Your task to perform on an android device: open app "The Home Depot" (install if not already installed) and enter user name: "taproot@icloud.com" and password: "executions" Image 0: 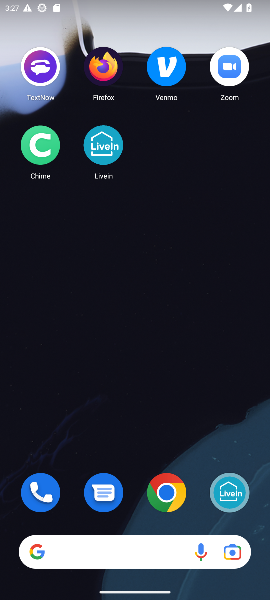
Step 0: drag from (136, 521) to (136, 130)
Your task to perform on an android device: open app "The Home Depot" (install if not already installed) and enter user name: "taproot@icloud.com" and password: "executions" Image 1: 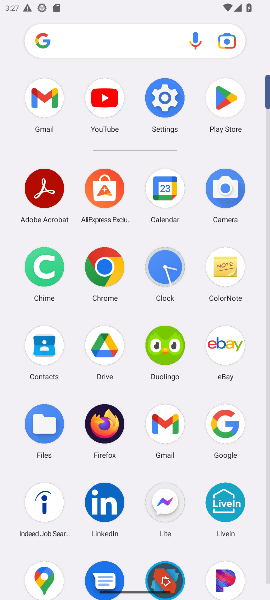
Step 1: click (227, 116)
Your task to perform on an android device: open app "The Home Depot" (install if not already installed) and enter user name: "taproot@icloud.com" and password: "executions" Image 2: 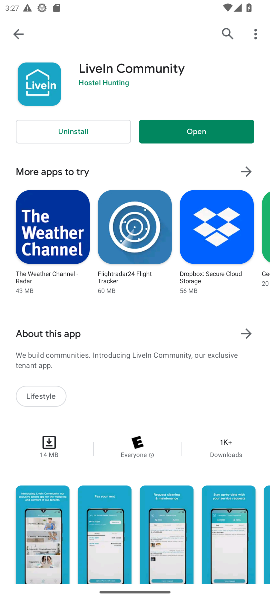
Step 2: click (230, 31)
Your task to perform on an android device: open app "The Home Depot" (install if not already installed) and enter user name: "taproot@icloud.com" and password: "executions" Image 3: 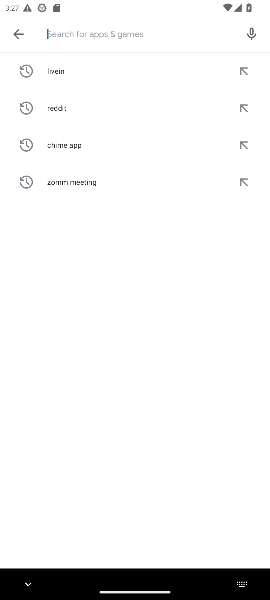
Step 3: type "the home depot"
Your task to perform on an android device: open app "The Home Depot" (install if not already installed) and enter user name: "taproot@icloud.com" and password: "executions" Image 4: 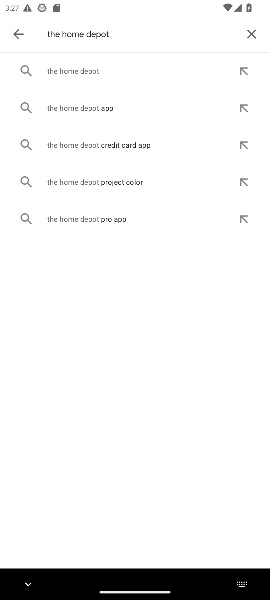
Step 4: click (107, 54)
Your task to perform on an android device: open app "The Home Depot" (install if not already installed) and enter user name: "taproot@icloud.com" and password: "executions" Image 5: 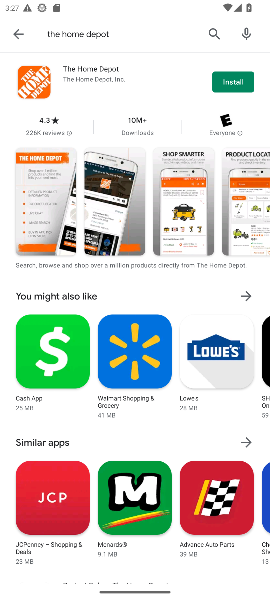
Step 5: click (218, 83)
Your task to perform on an android device: open app "The Home Depot" (install if not already installed) and enter user name: "taproot@icloud.com" and password: "executions" Image 6: 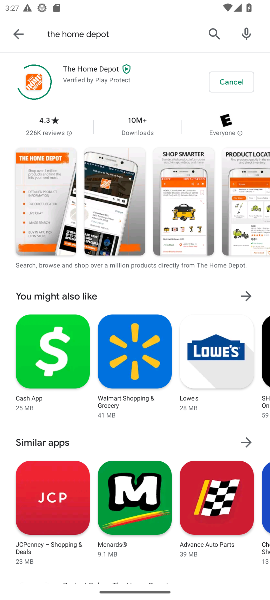
Step 6: task complete